Your task to perform on an android device: Show me popular videos on Youtube Image 0: 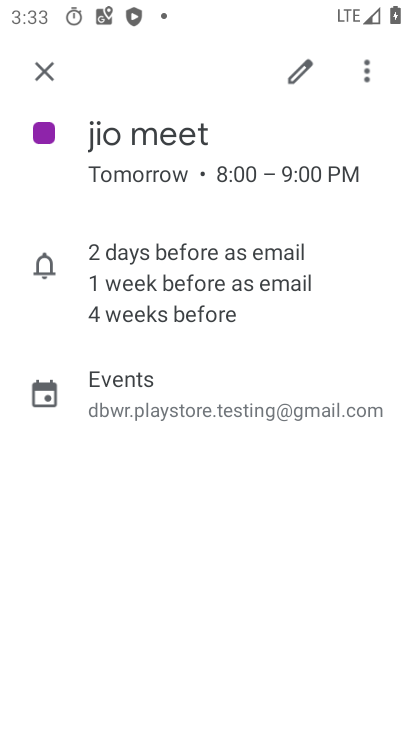
Step 0: press home button
Your task to perform on an android device: Show me popular videos on Youtube Image 1: 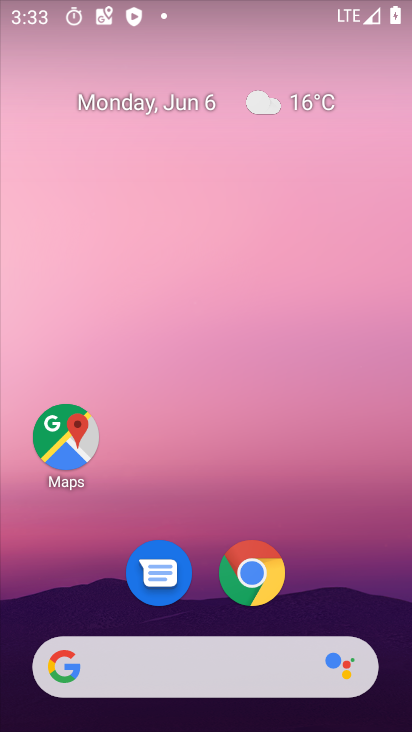
Step 1: drag from (374, 618) to (375, 243)
Your task to perform on an android device: Show me popular videos on Youtube Image 2: 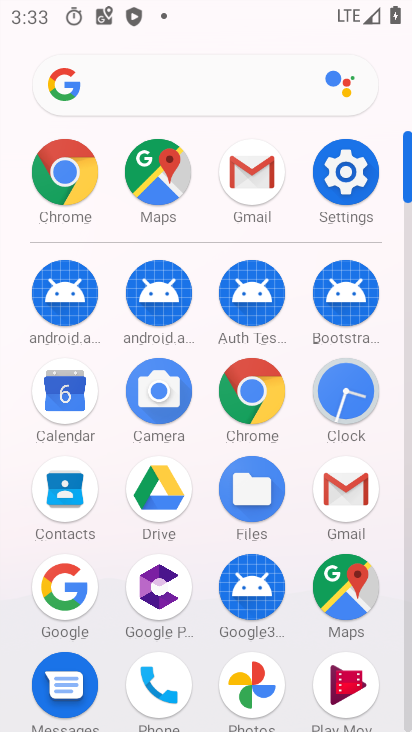
Step 2: drag from (383, 543) to (393, 288)
Your task to perform on an android device: Show me popular videos on Youtube Image 3: 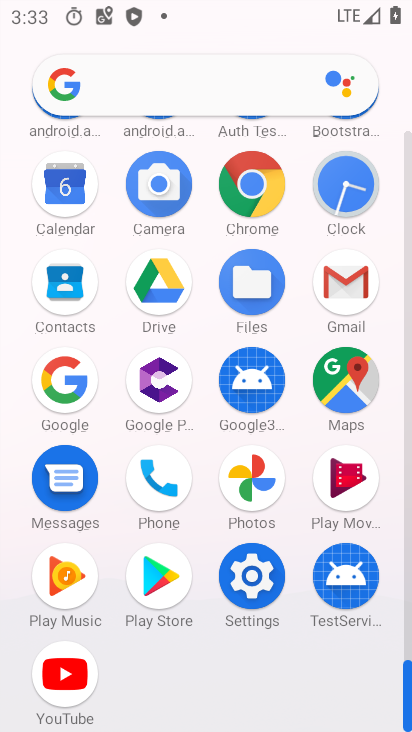
Step 3: click (65, 678)
Your task to perform on an android device: Show me popular videos on Youtube Image 4: 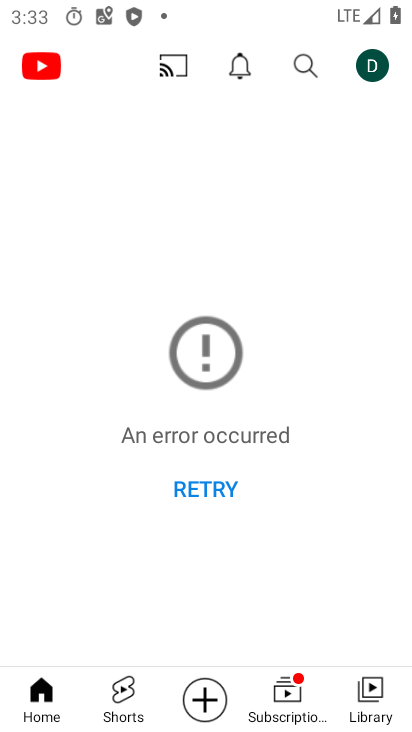
Step 4: task complete